Your task to perform on an android device: Open the phone app and click the voicemail tab. Image 0: 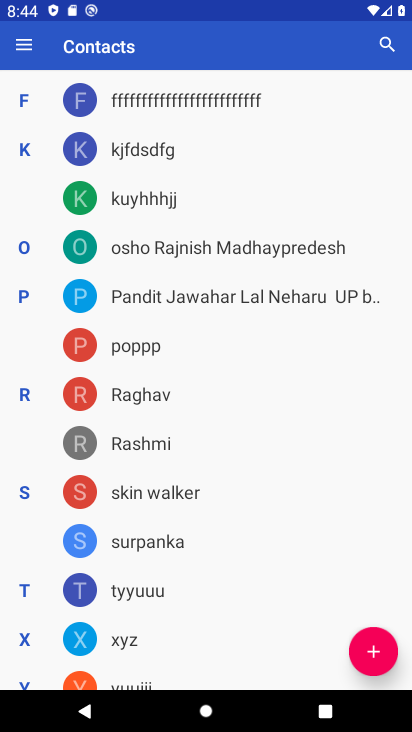
Step 0: press home button
Your task to perform on an android device: Open the phone app and click the voicemail tab. Image 1: 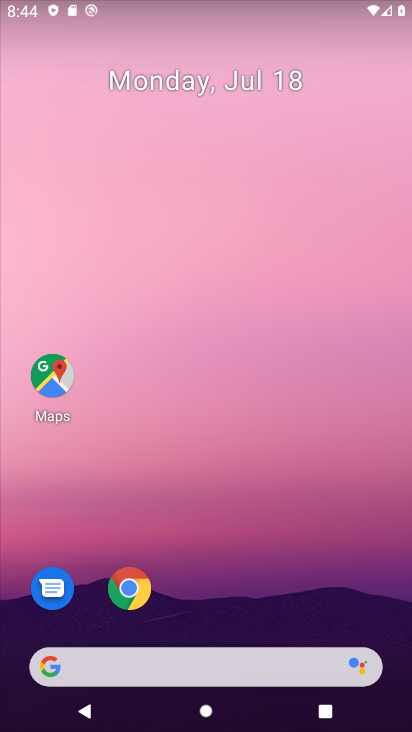
Step 1: drag from (304, 574) to (206, 136)
Your task to perform on an android device: Open the phone app and click the voicemail tab. Image 2: 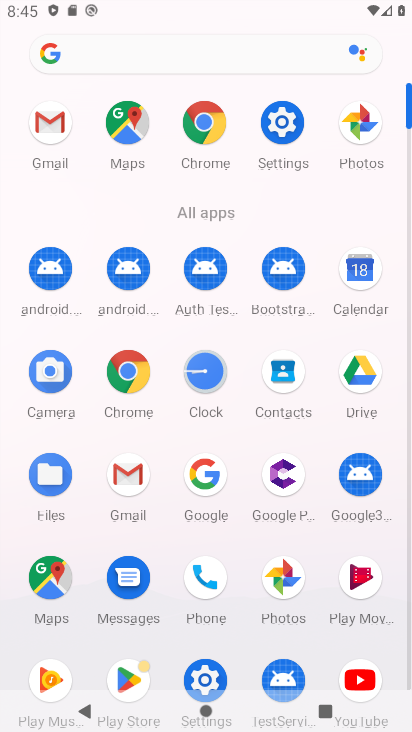
Step 2: click (215, 575)
Your task to perform on an android device: Open the phone app and click the voicemail tab. Image 3: 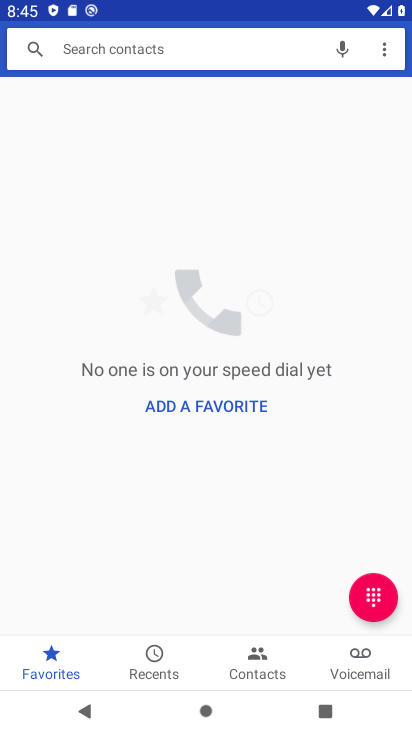
Step 3: click (359, 678)
Your task to perform on an android device: Open the phone app and click the voicemail tab. Image 4: 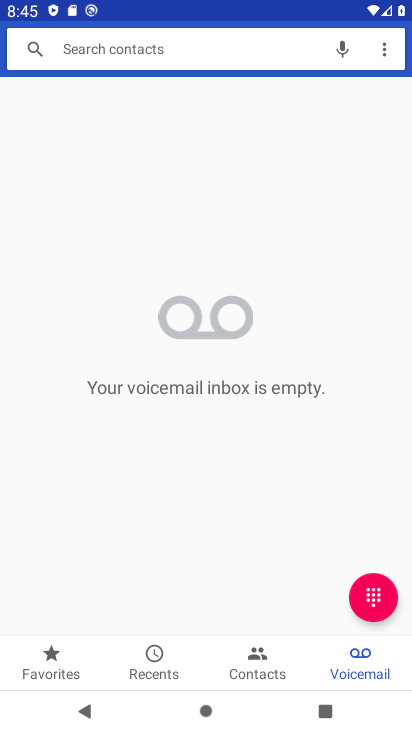
Step 4: task complete